Your task to perform on an android device: change notification settings in the gmail app Image 0: 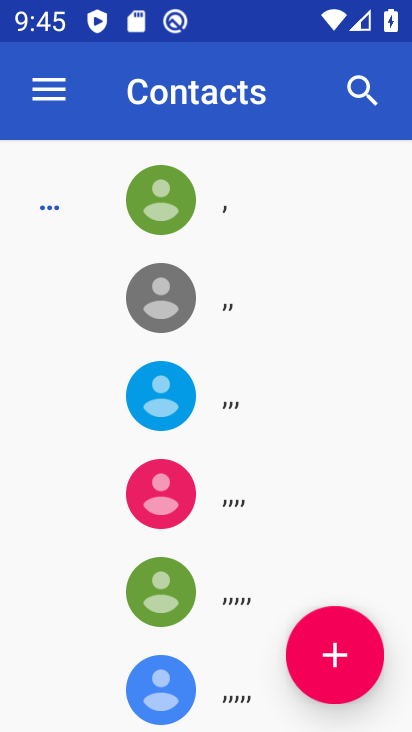
Step 0: press home button
Your task to perform on an android device: change notification settings in the gmail app Image 1: 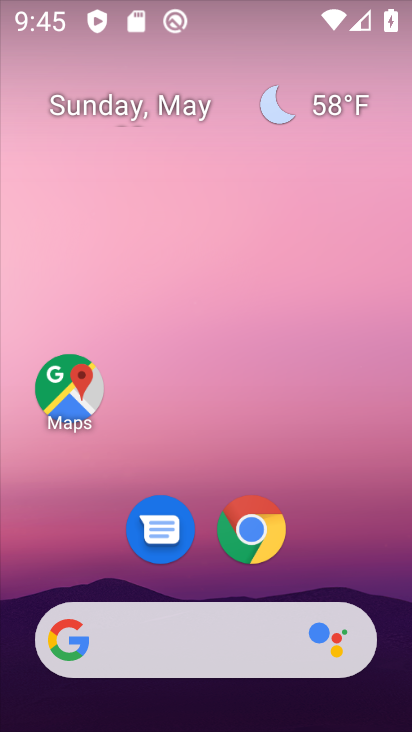
Step 1: drag from (215, 579) to (222, 6)
Your task to perform on an android device: change notification settings in the gmail app Image 2: 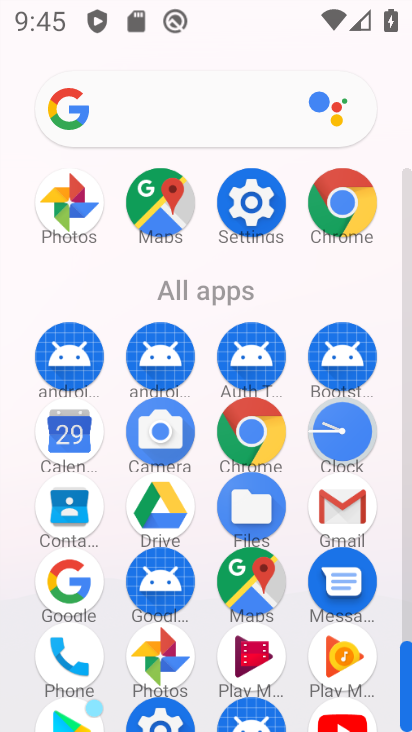
Step 2: click (334, 508)
Your task to perform on an android device: change notification settings in the gmail app Image 3: 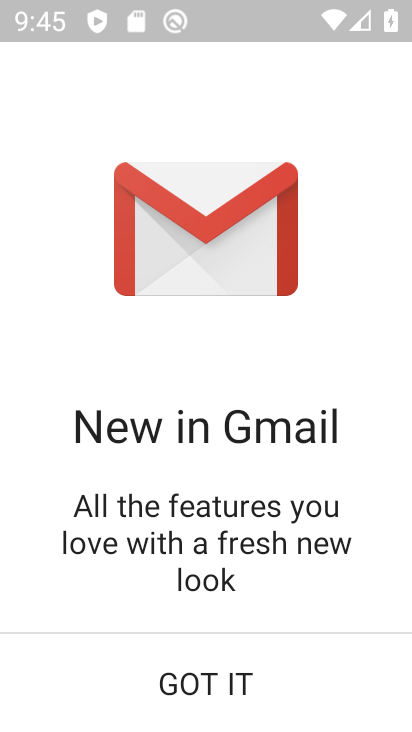
Step 3: click (228, 686)
Your task to perform on an android device: change notification settings in the gmail app Image 4: 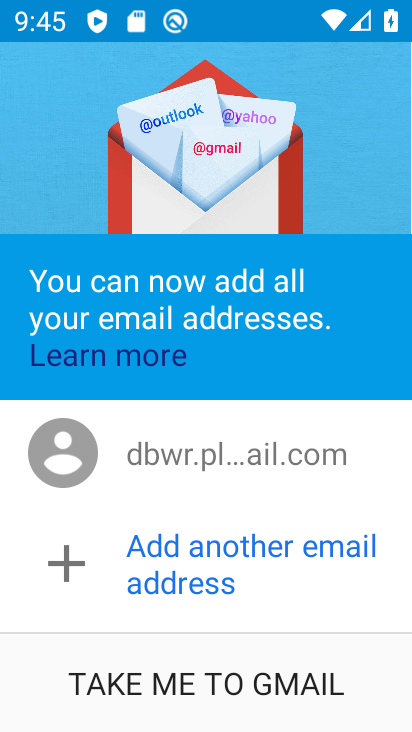
Step 4: click (228, 680)
Your task to perform on an android device: change notification settings in the gmail app Image 5: 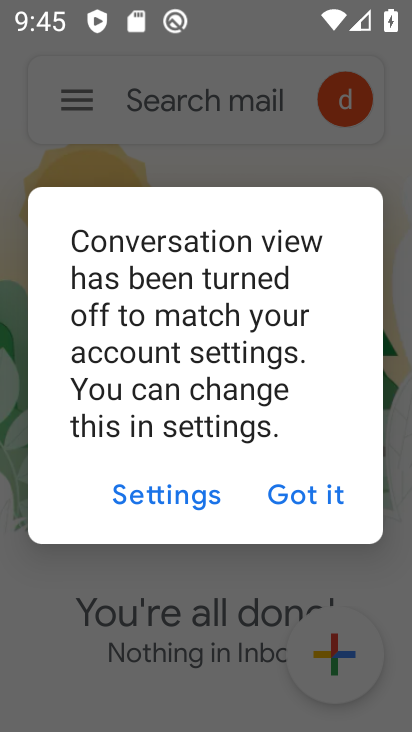
Step 5: click (327, 488)
Your task to perform on an android device: change notification settings in the gmail app Image 6: 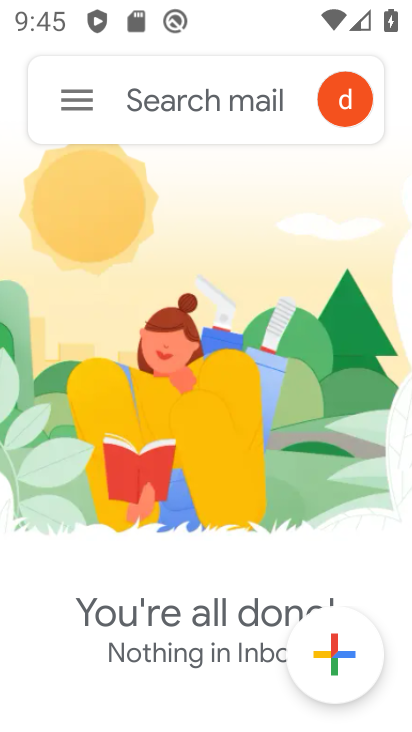
Step 6: click (70, 104)
Your task to perform on an android device: change notification settings in the gmail app Image 7: 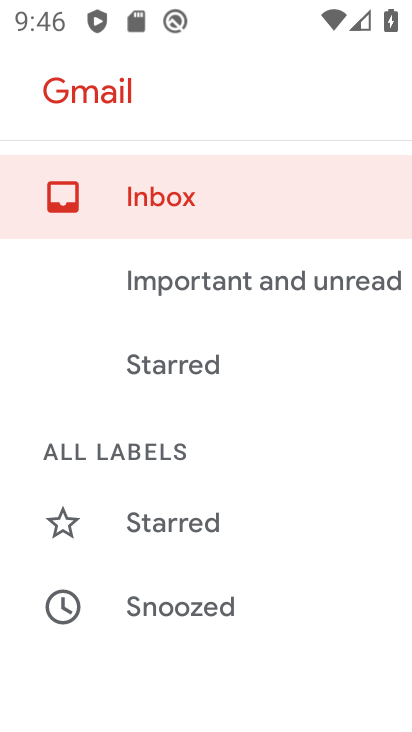
Step 7: drag from (140, 609) to (184, 19)
Your task to perform on an android device: change notification settings in the gmail app Image 8: 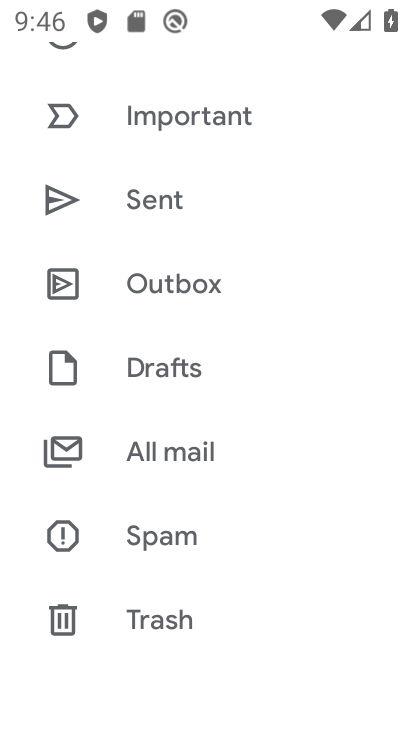
Step 8: drag from (167, 607) to (180, 5)
Your task to perform on an android device: change notification settings in the gmail app Image 9: 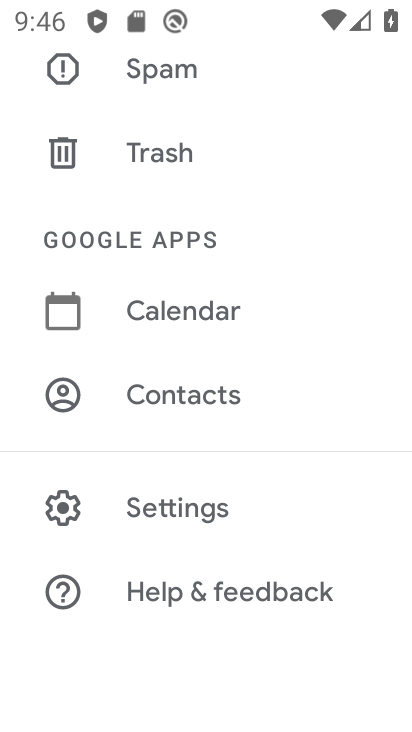
Step 9: click (193, 517)
Your task to perform on an android device: change notification settings in the gmail app Image 10: 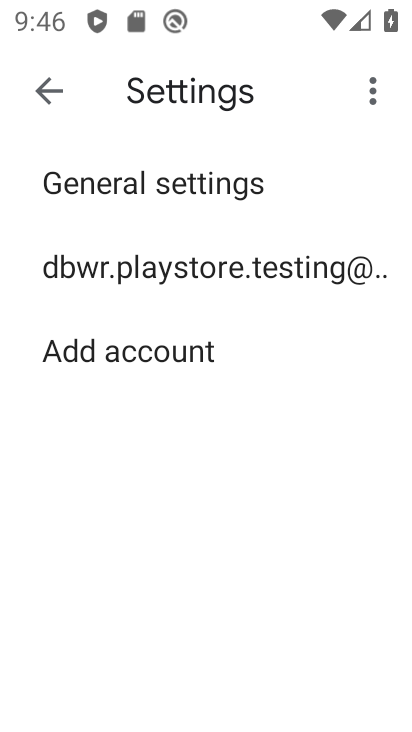
Step 10: click (187, 174)
Your task to perform on an android device: change notification settings in the gmail app Image 11: 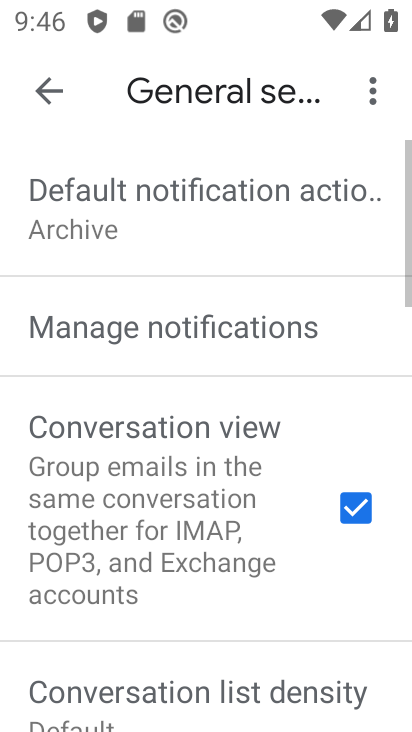
Step 11: click (194, 333)
Your task to perform on an android device: change notification settings in the gmail app Image 12: 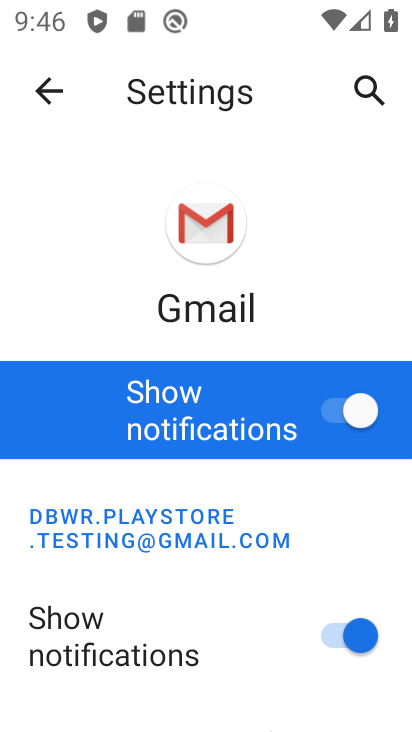
Step 12: click (325, 405)
Your task to perform on an android device: change notification settings in the gmail app Image 13: 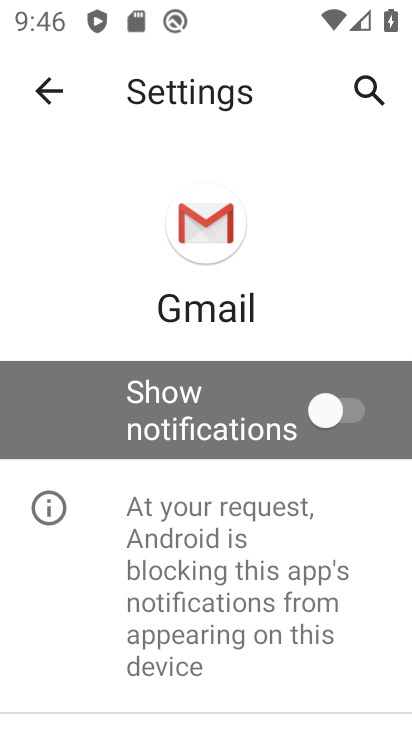
Step 13: task complete